Your task to perform on an android device: change the clock display to digital Image 0: 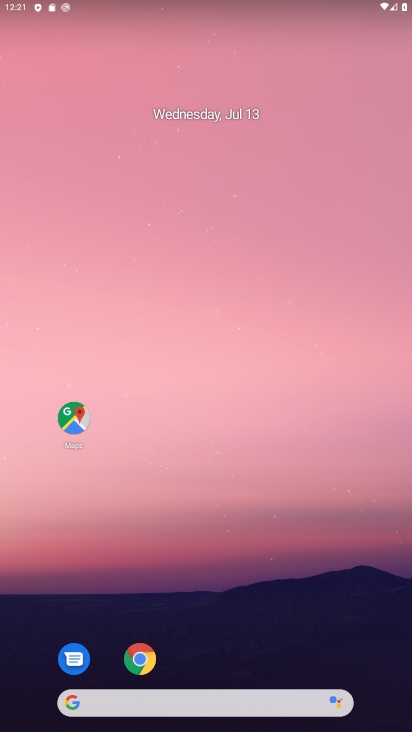
Step 0: drag from (267, 644) to (299, 139)
Your task to perform on an android device: change the clock display to digital Image 1: 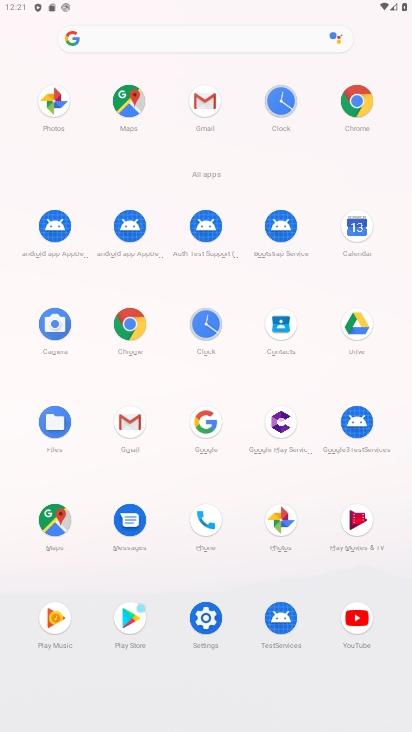
Step 1: click (200, 351)
Your task to perform on an android device: change the clock display to digital Image 2: 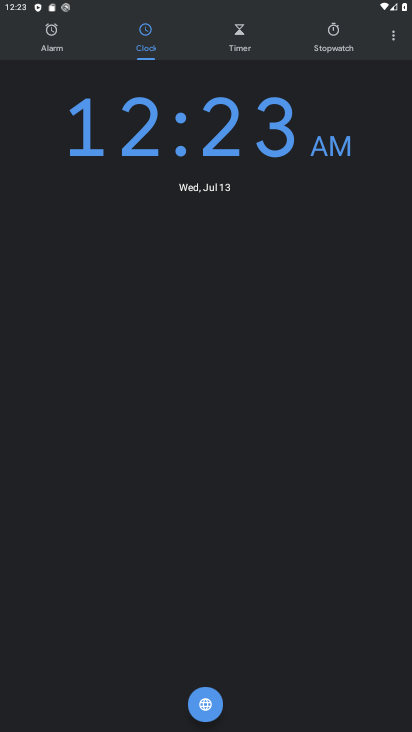
Step 2: click (402, 33)
Your task to perform on an android device: change the clock display to digital Image 3: 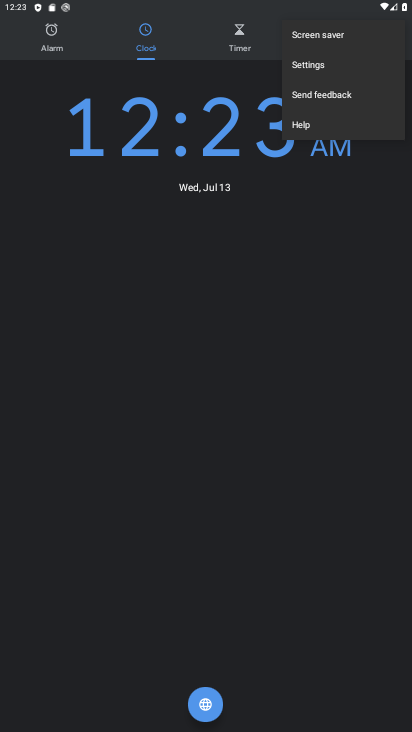
Step 3: click (321, 68)
Your task to perform on an android device: change the clock display to digital Image 4: 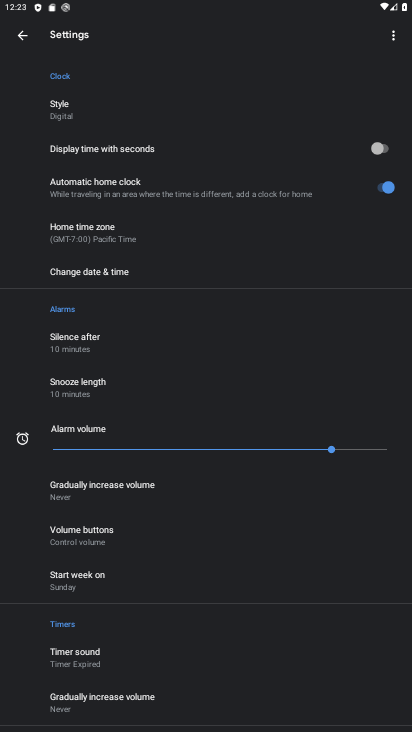
Step 4: click (53, 103)
Your task to perform on an android device: change the clock display to digital Image 5: 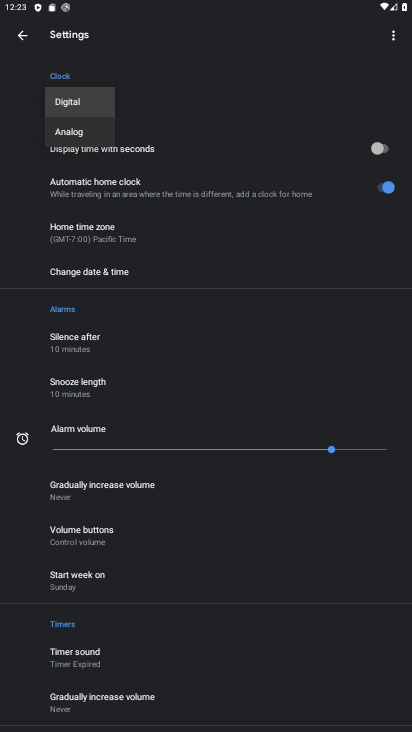
Step 5: click (85, 100)
Your task to perform on an android device: change the clock display to digital Image 6: 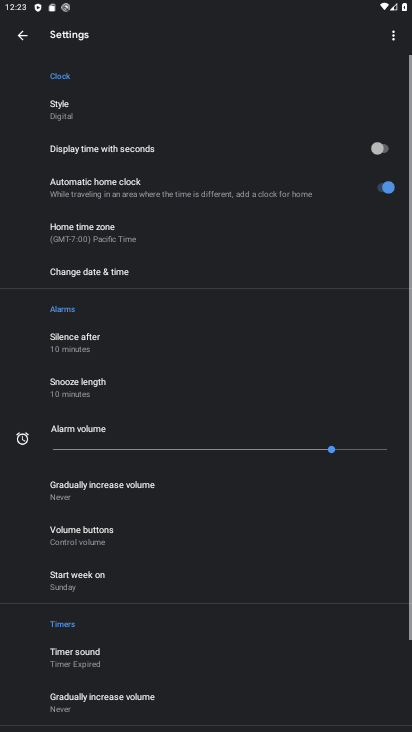
Step 6: task complete